Your task to perform on an android device: What's the weather going to be tomorrow? Image 0: 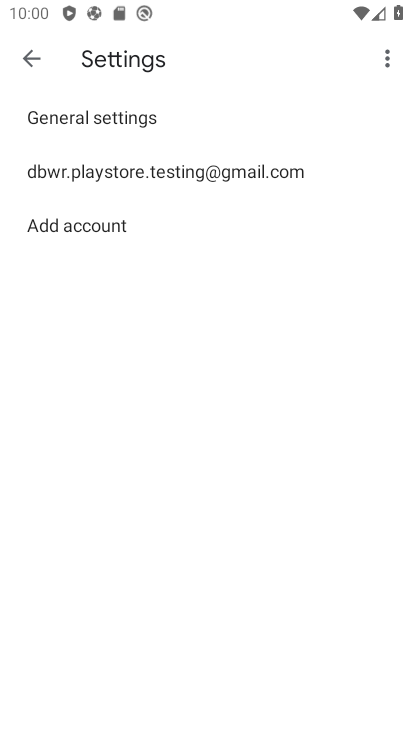
Step 0: press home button
Your task to perform on an android device: What's the weather going to be tomorrow? Image 1: 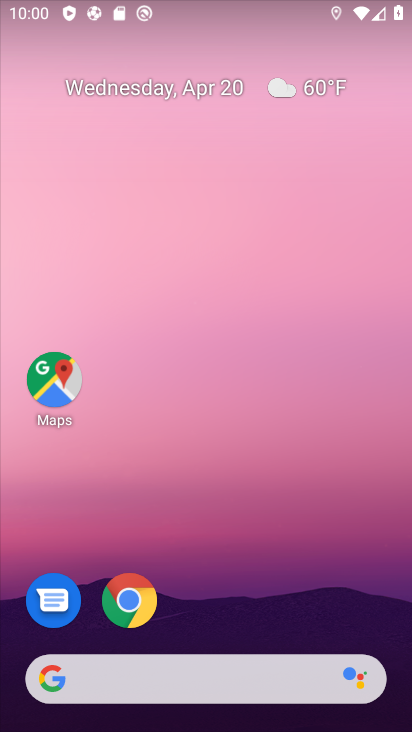
Step 1: drag from (243, 601) to (279, 123)
Your task to perform on an android device: What's the weather going to be tomorrow? Image 2: 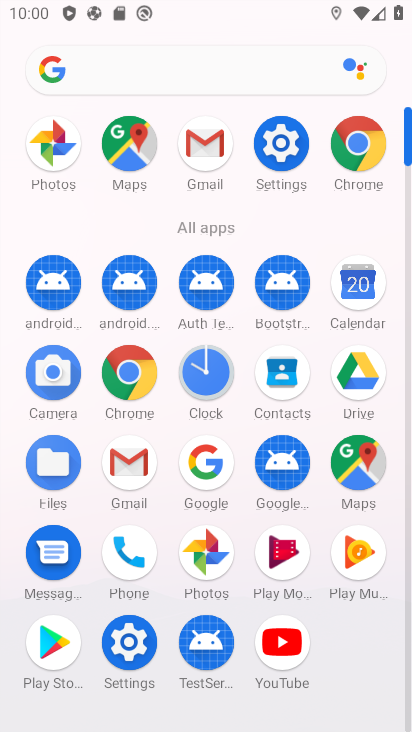
Step 2: click (133, 363)
Your task to perform on an android device: What's the weather going to be tomorrow? Image 3: 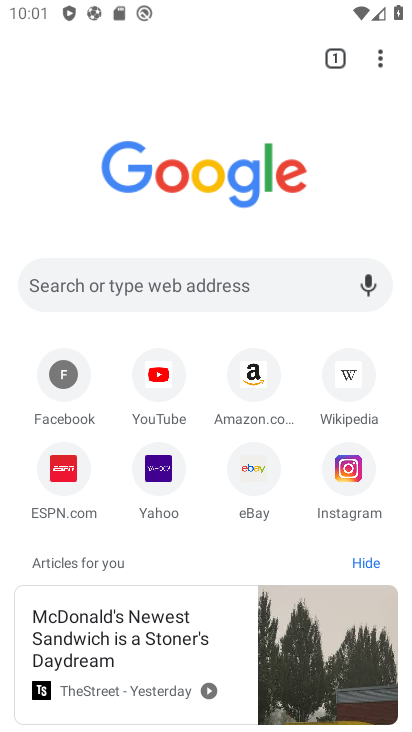
Step 3: click (240, 278)
Your task to perform on an android device: What's the weather going to be tomorrow? Image 4: 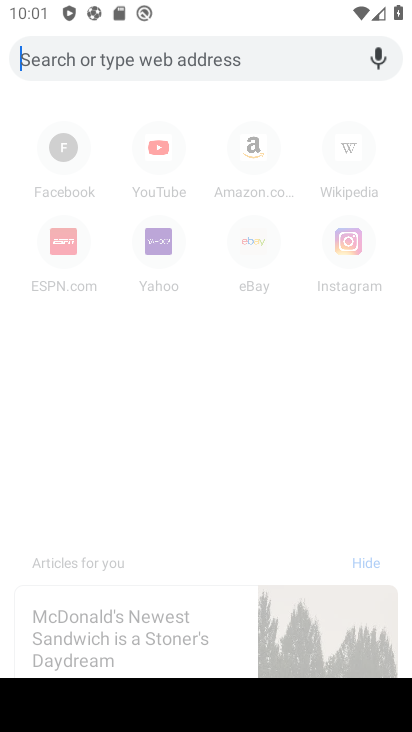
Step 4: type "What's the weather going to be tomorrow?"
Your task to perform on an android device: What's the weather going to be tomorrow? Image 5: 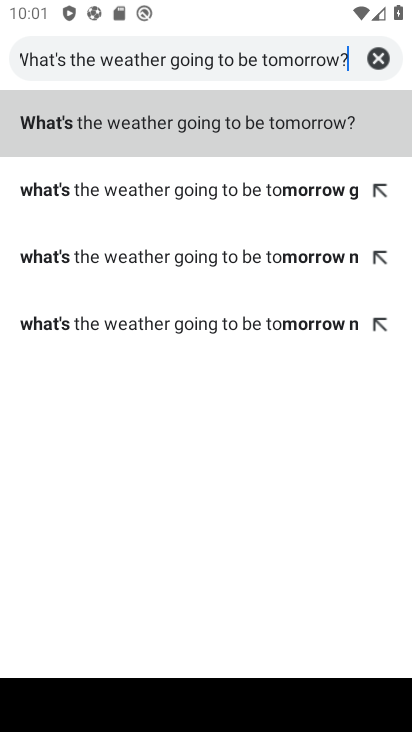
Step 5: click (132, 120)
Your task to perform on an android device: What's the weather going to be tomorrow? Image 6: 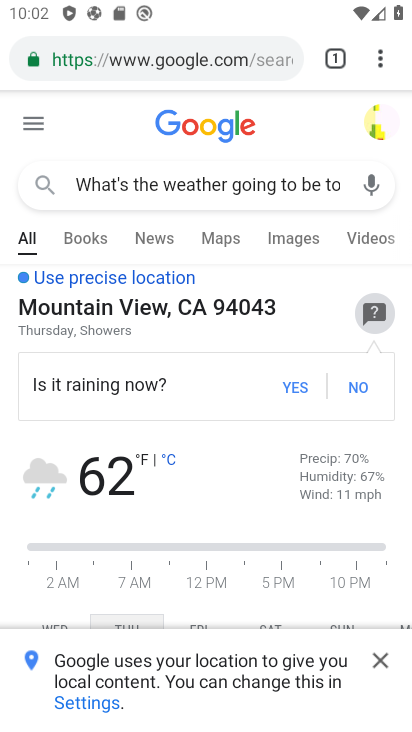
Step 6: task complete